Your task to perform on an android device: change timer sound Image 0: 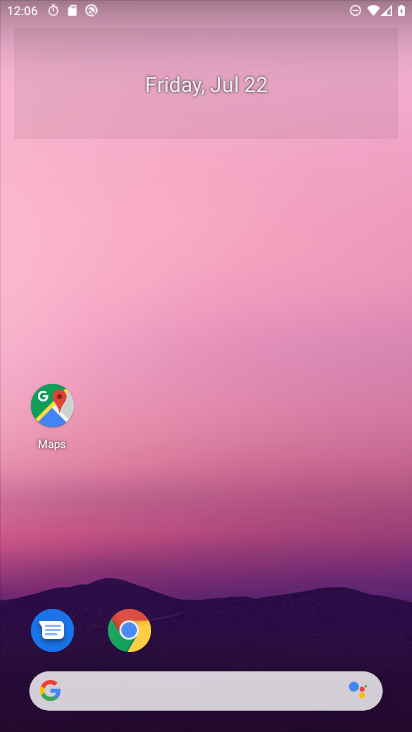
Step 0: press home button
Your task to perform on an android device: change timer sound Image 1: 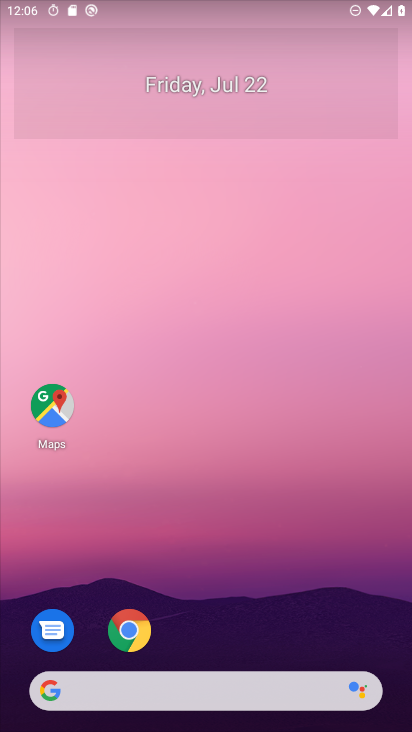
Step 1: click (239, 76)
Your task to perform on an android device: change timer sound Image 2: 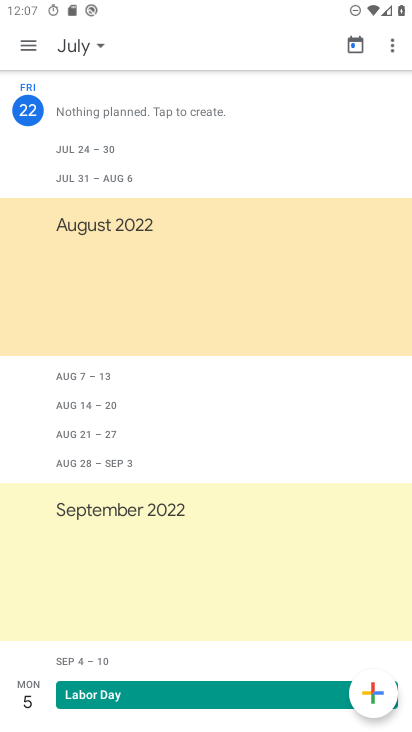
Step 2: press home button
Your task to perform on an android device: change timer sound Image 3: 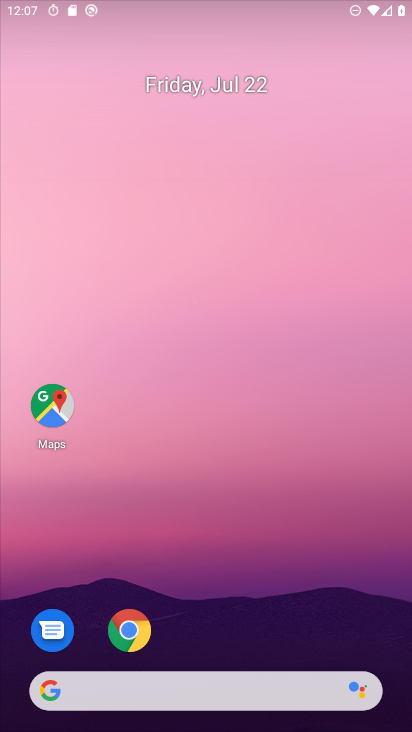
Step 3: drag from (256, 565) to (247, 54)
Your task to perform on an android device: change timer sound Image 4: 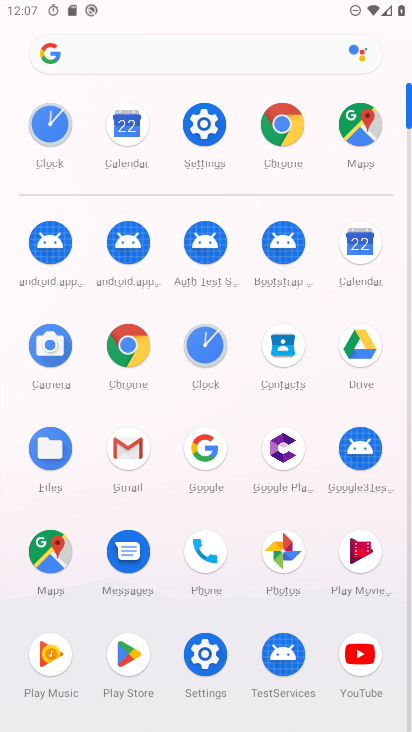
Step 4: click (55, 128)
Your task to perform on an android device: change timer sound Image 5: 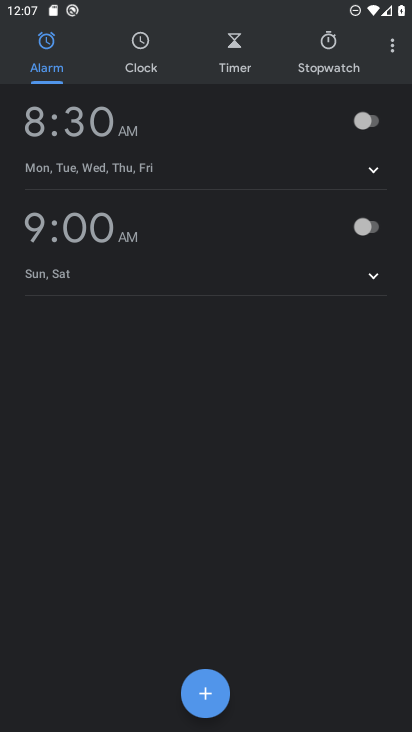
Step 5: click (396, 48)
Your task to perform on an android device: change timer sound Image 6: 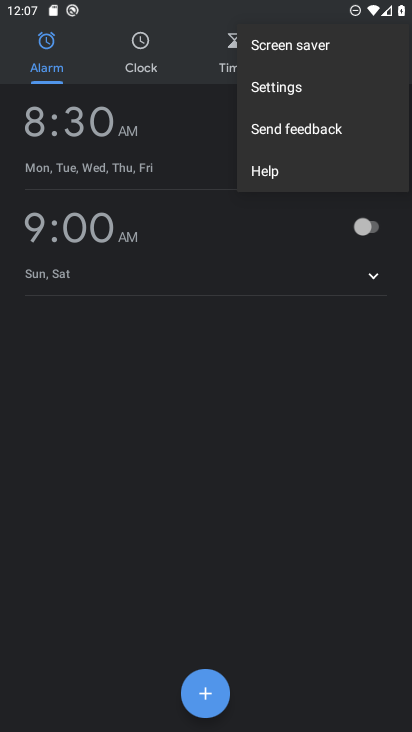
Step 6: click (299, 96)
Your task to perform on an android device: change timer sound Image 7: 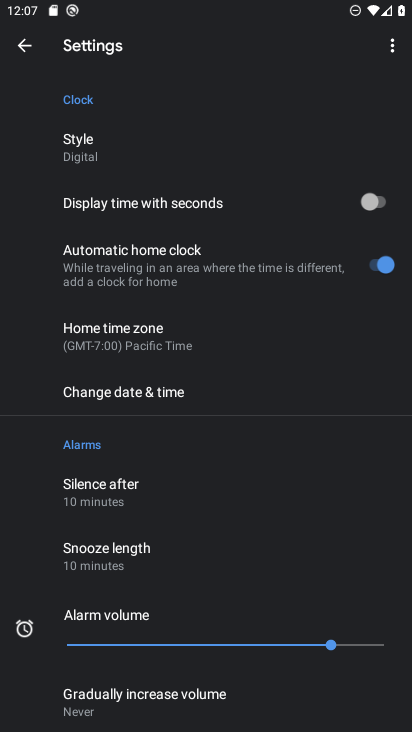
Step 7: drag from (185, 452) to (180, 110)
Your task to perform on an android device: change timer sound Image 8: 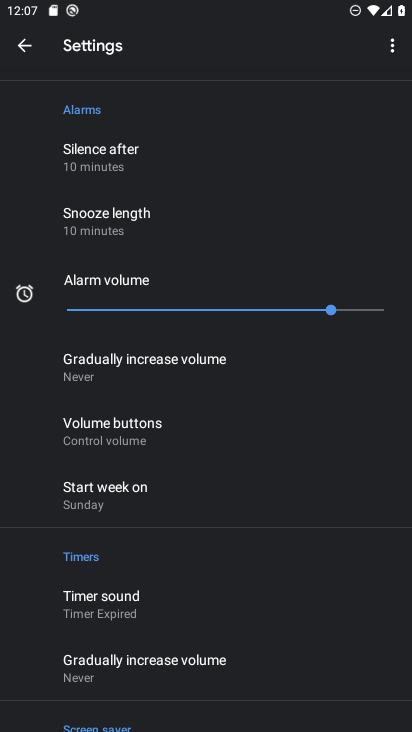
Step 8: click (116, 602)
Your task to perform on an android device: change timer sound Image 9: 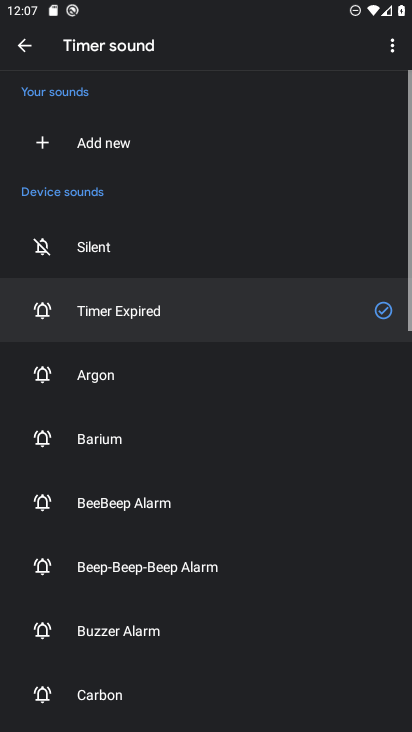
Step 9: click (94, 373)
Your task to perform on an android device: change timer sound Image 10: 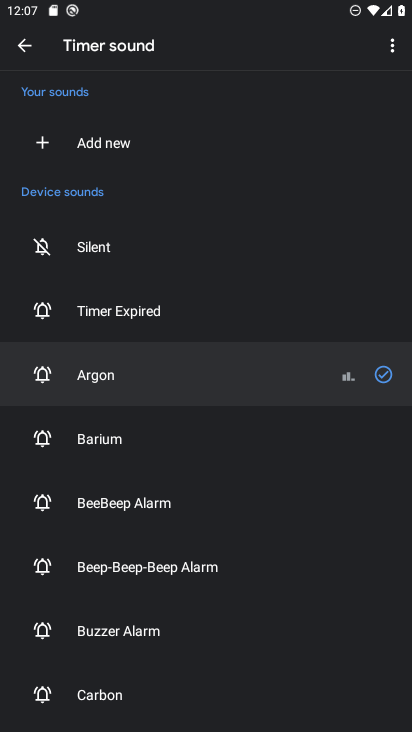
Step 10: task complete